Your task to perform on an android device: turn off improve location accuracy Image 0: 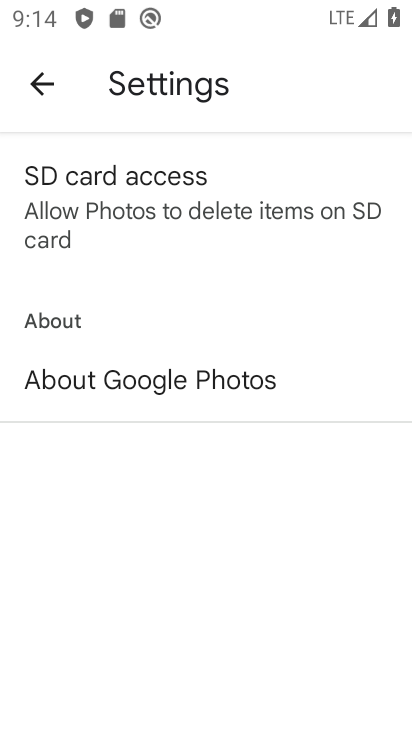
Step 0: press home button
Your task to perform on an android device: turn off improve location accuracy Image 1: 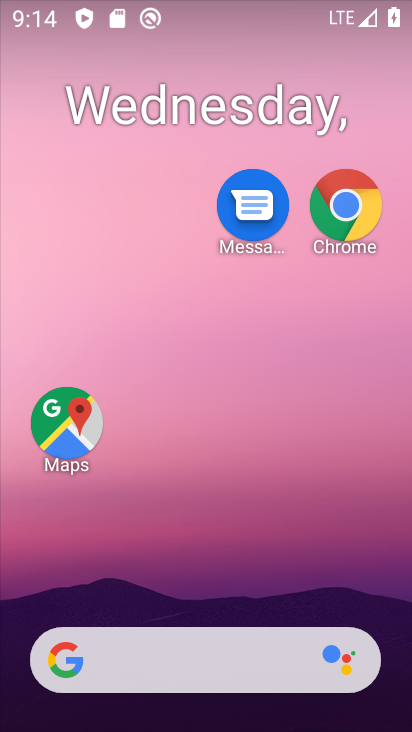
Step 1: drag from (236, 569) to (315, 203)
Your task to perform on an android device: turn off improve location accuracy Image 2: 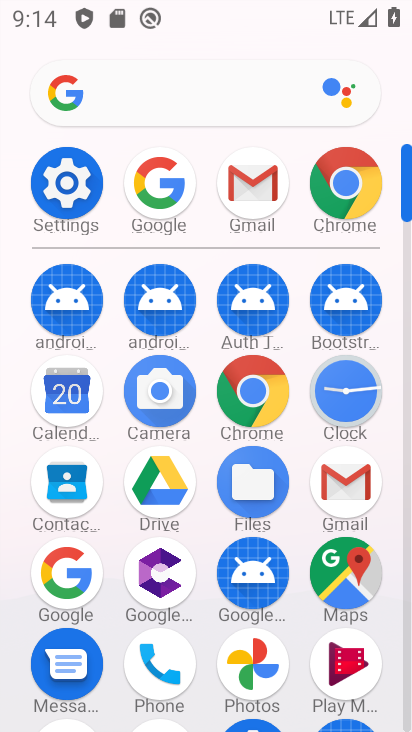
Step 2: click (64, 140)
Your task to perform on an android device: turn off improve location accuracy Image 3: 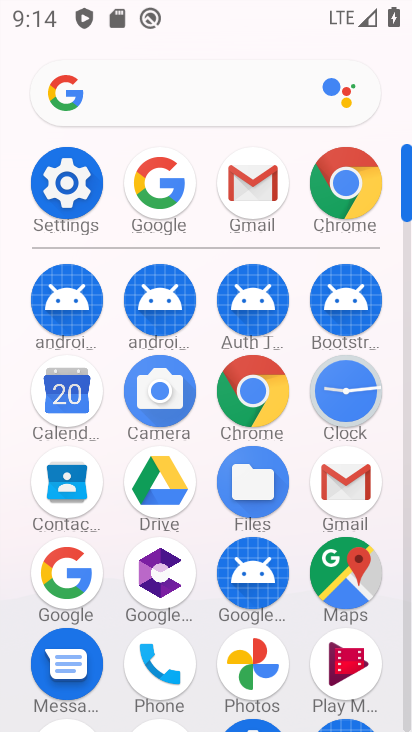
Step 3: click (54, 160)
Your task to perform on an android device: turn off improve location accuracy Image 4: 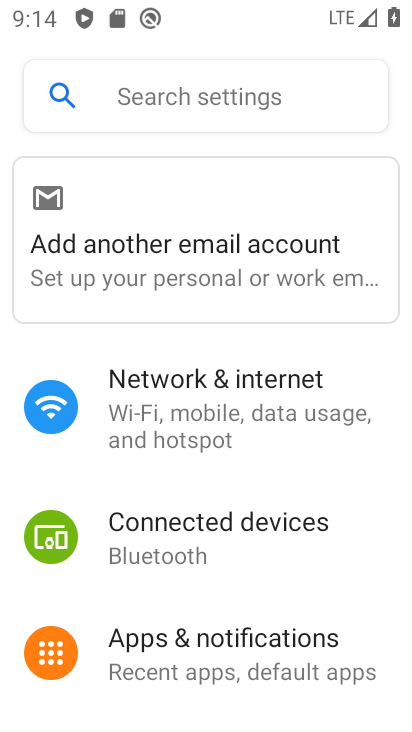
Step 4: drag from (235, 635) to (410, 30)
Your task to perform on an android device: turn off improve location accuracy Image 5: 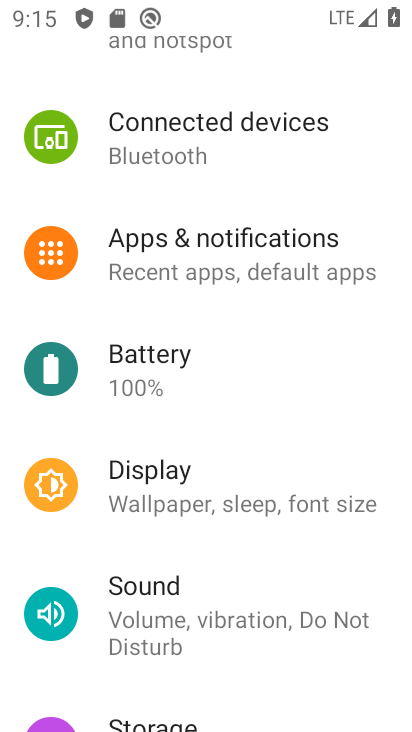
Step 5: drag from (250, 638) to (344, 220)
Your task to perform on an android device: turn off improve location accuracy Image 6: 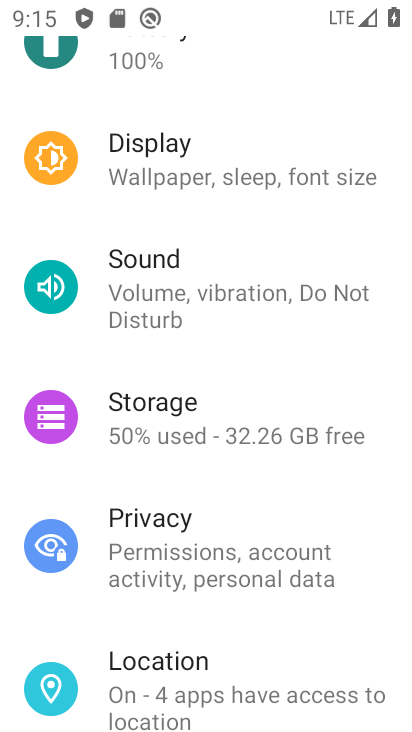
Step 6: click (203, 647)
Your task to perform on an android device: turn off improve location accuracy Image 7: 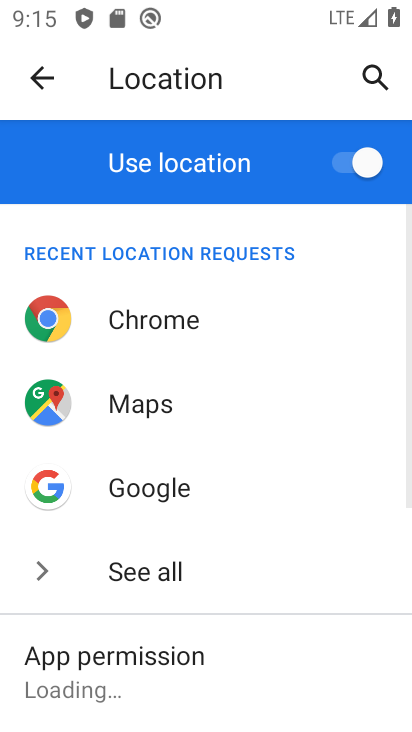
Step 7: drag from (200, 642) to (335, 174)
Your task to perform on an android device: turn off improve location accuracy Image 8: 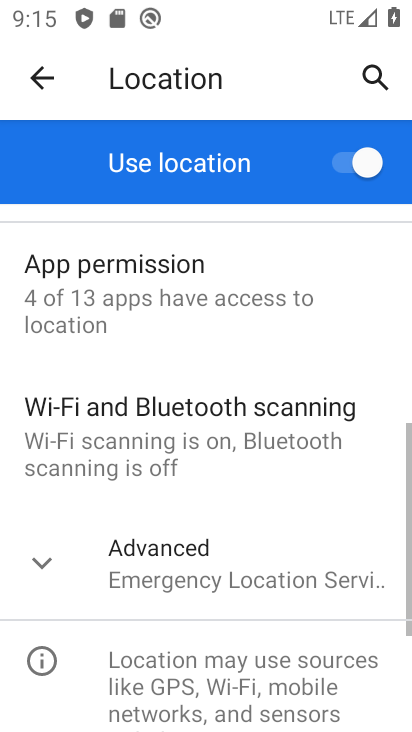
Step 8: click (195, 565)
Your task to perform on an android device: turn off improve location accuracy Image 9: 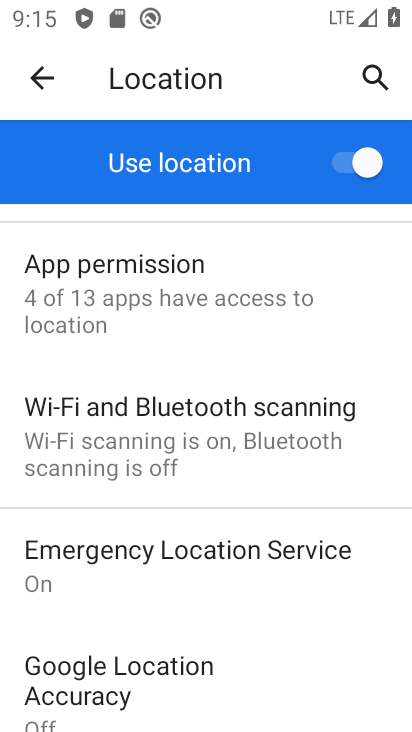
Step 9: drag from (246, 603) to (338, 168)
Your task to perform on an android device: turn off improve location accuracy Image 10: 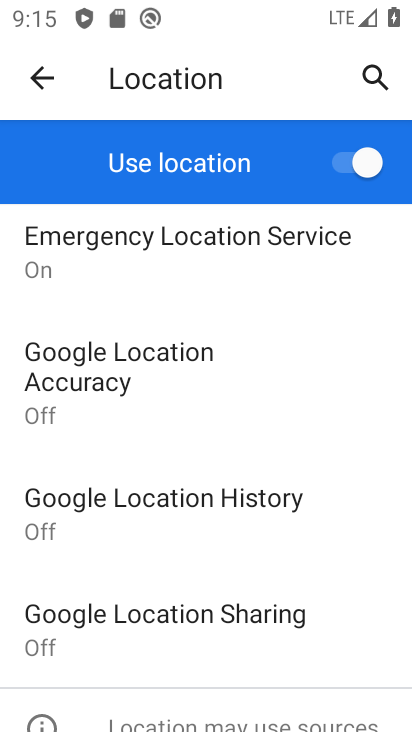
Step 10: click (154, 373)
Your task to perform on an android device: turn off improve location accuracy Image 11: 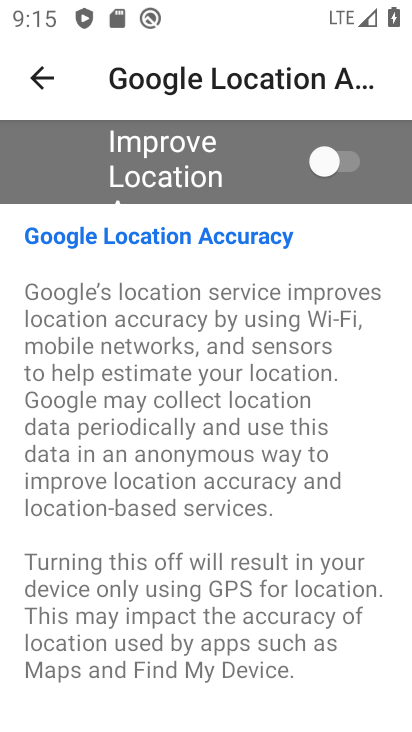
Step 11: task complete